Your task to perform on an android device: toggle translation in the chrome app Image 0: 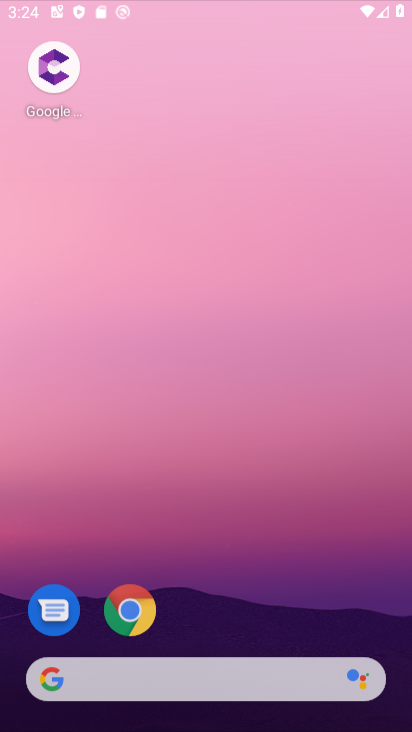
Step 0: click (128, 46)
Your task to perform on an android device: toggle translation in the chrome app Image 1: 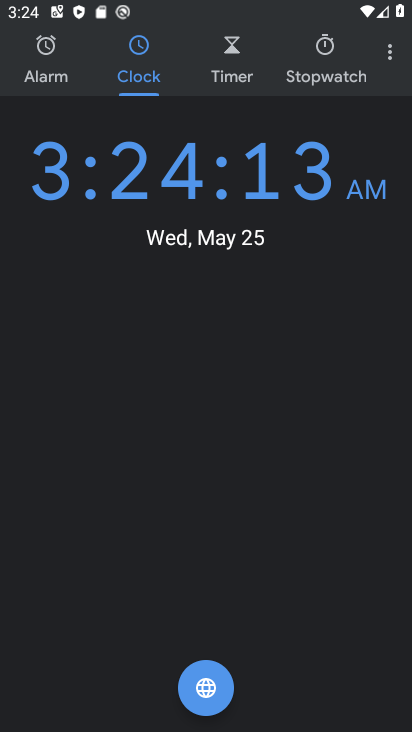
Step 1: press home button
Your task to perform on an android device: toggle translation in the chrome app Image 2: 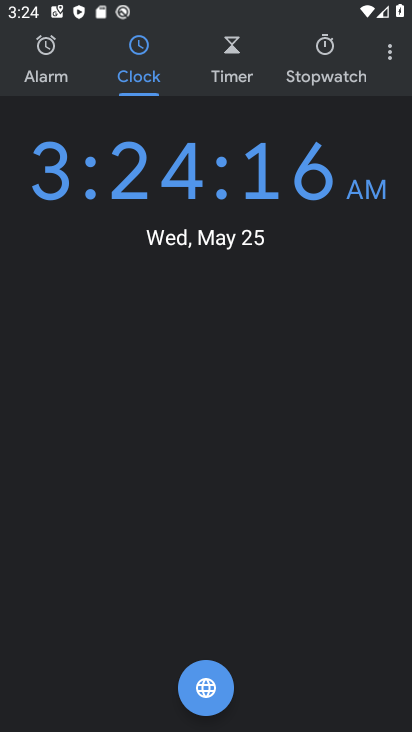
Step 2: press home button
Your task to perform on an android device: toggle translation in the chrome app Image 3: 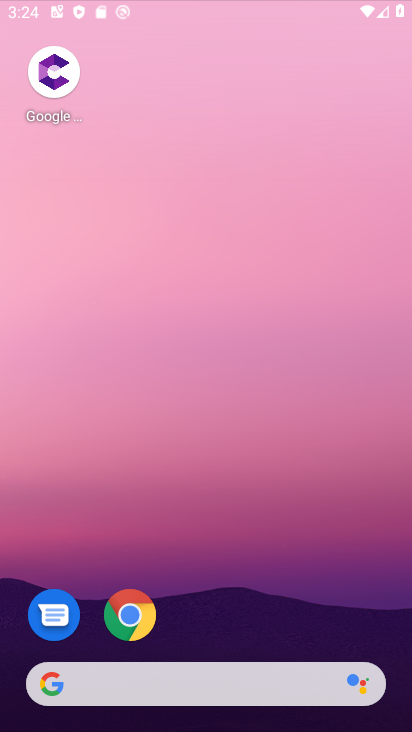
Step 3: press home button
Your task to perform on an android device: toggle translation in the chrome app Image 4: 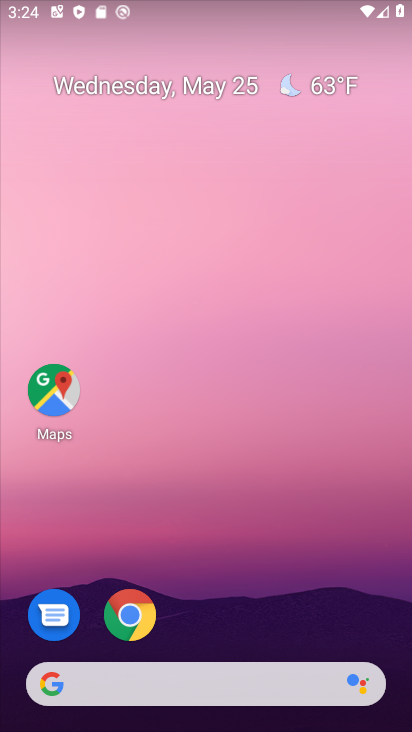
Step 4: drag from (268, 616) to (183, 113)
Your task to perform on an android device: toggle translation in the chrome app Image 5: 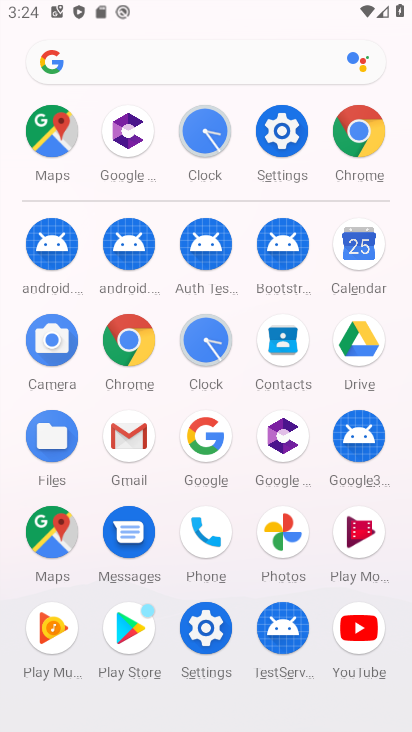
Step 5: click (369, 128)
Your task to perform on an android device: toggle translation in the chrome app Image 6: 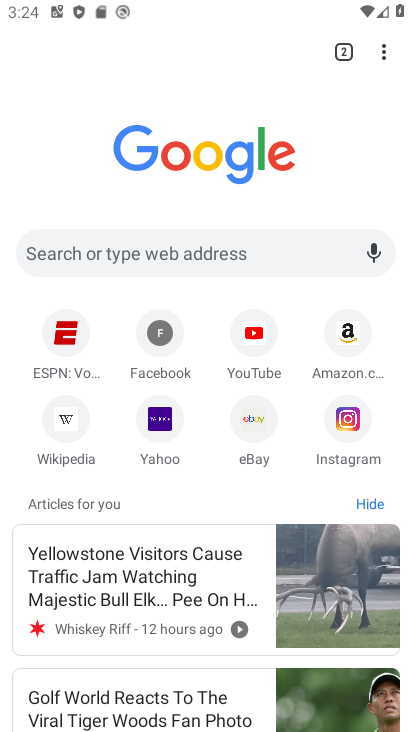
Step 6: click (381, 56)
Your task to perform on an android device: toggle translation in the chrome app Image 7: 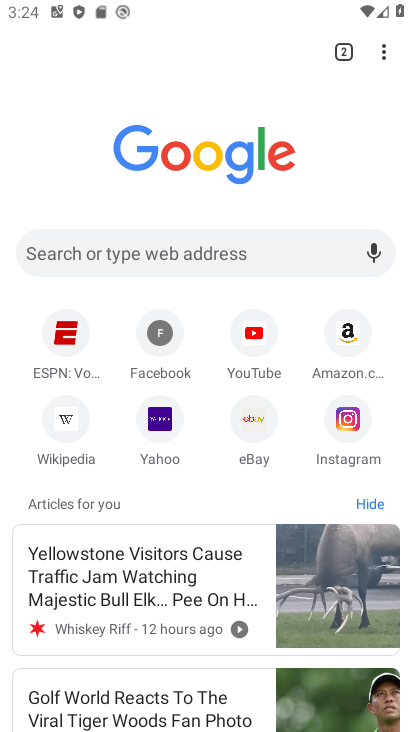
Step 7: click (382, 51)
Your task to perform on an android device: toggle translation in the chrome app Image 8: 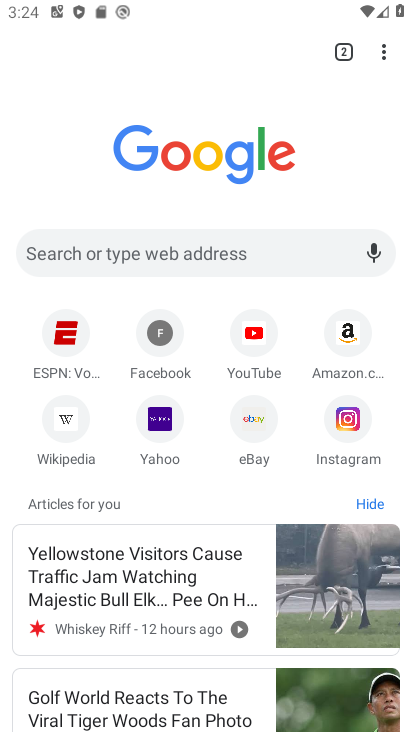
Step 8: drag from (385, 51) to (193, 443)
Your task to perform on an android device: toggle translation in the chrome app Image 9: 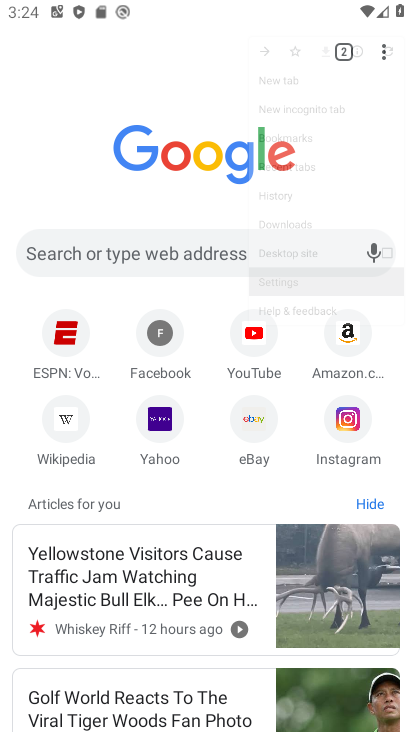
Step 9: click (202, 442)
Your task to perform on an android device: toggle translation in the chrome app Image 10: 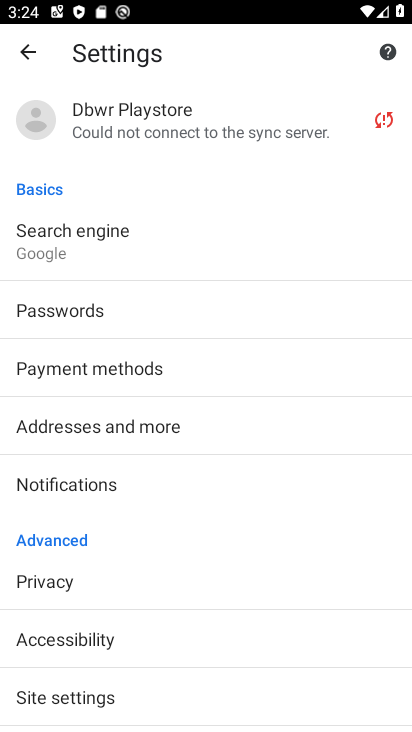
Step 10: drag from (89, 609) to (125, 319)
Your task to perform on an android device: toggle translation in the chrome app Image 11: 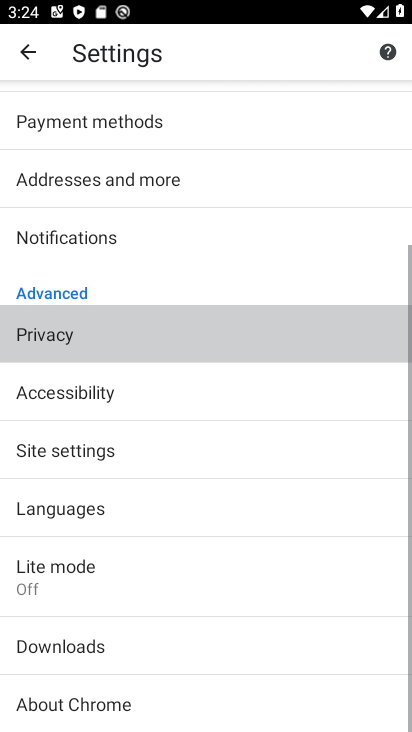
Step 11: drag from (130, 476) to (124, 139)
Your task to perform on an android device: toggle translation in the chrome app Image 12: 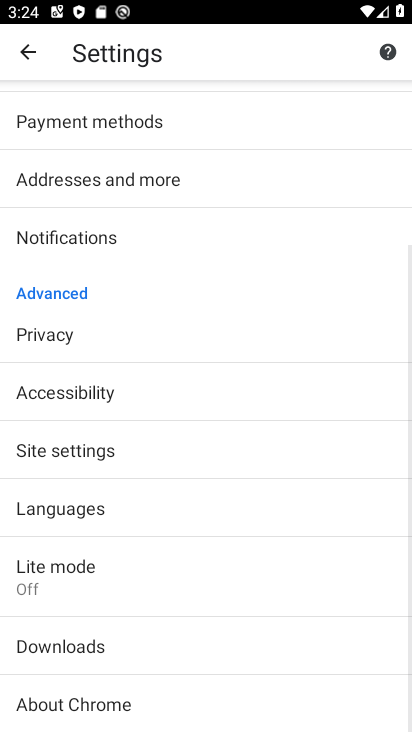
Step 12: click (58, 508)
Your task to perform on an android device: toggle translation in the chrome app Image 13: 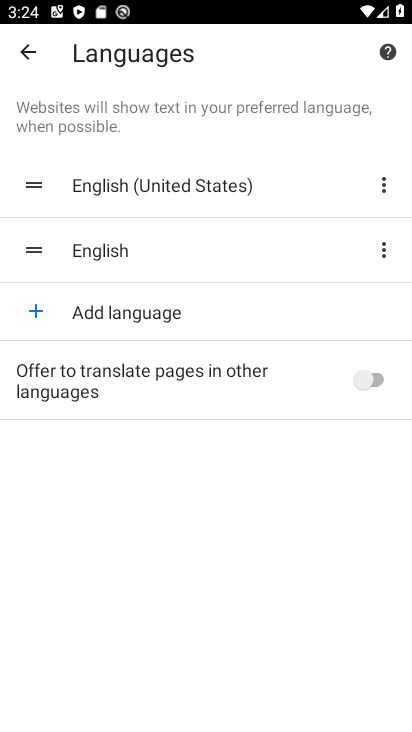
Step 13: click (376, 373)
Your task to perform on an android device: toggle translation in the chrome app Image 14: 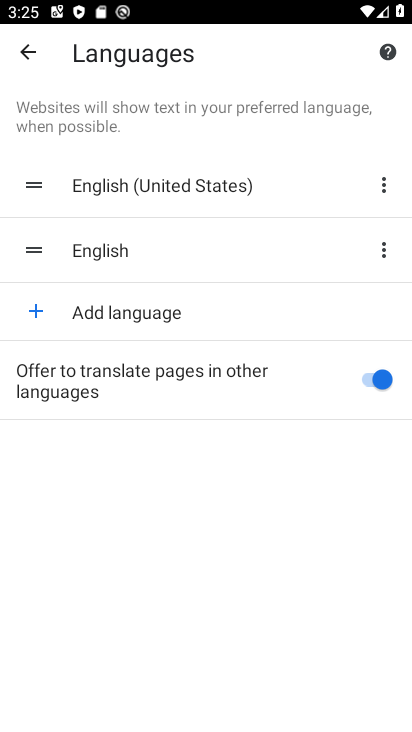
Step 14: task complete